Your task to perform on an android device: find snoozed emails in the gmail app Image 0: 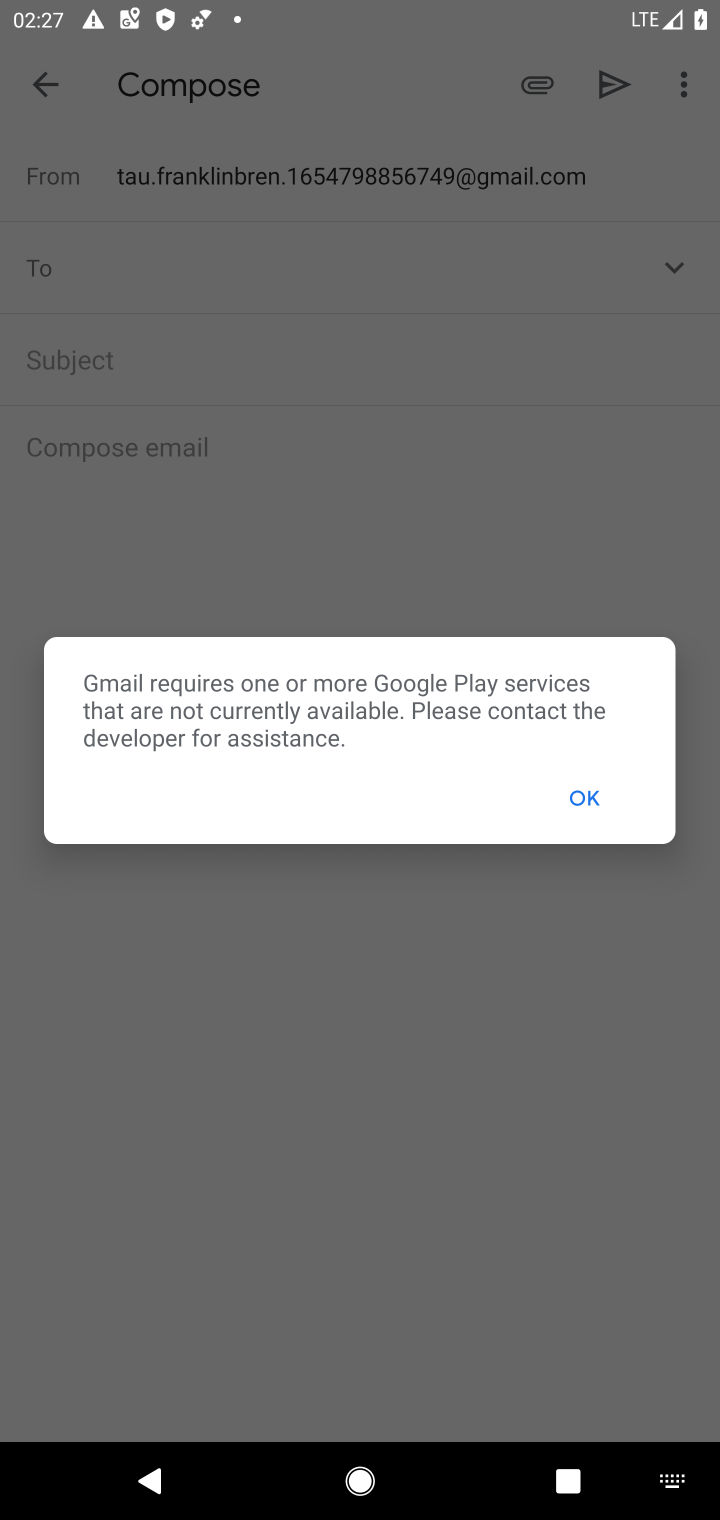
Step 0: press home button
Your task to perform on an android device: find snoozed emails in the gmail app Image 1: 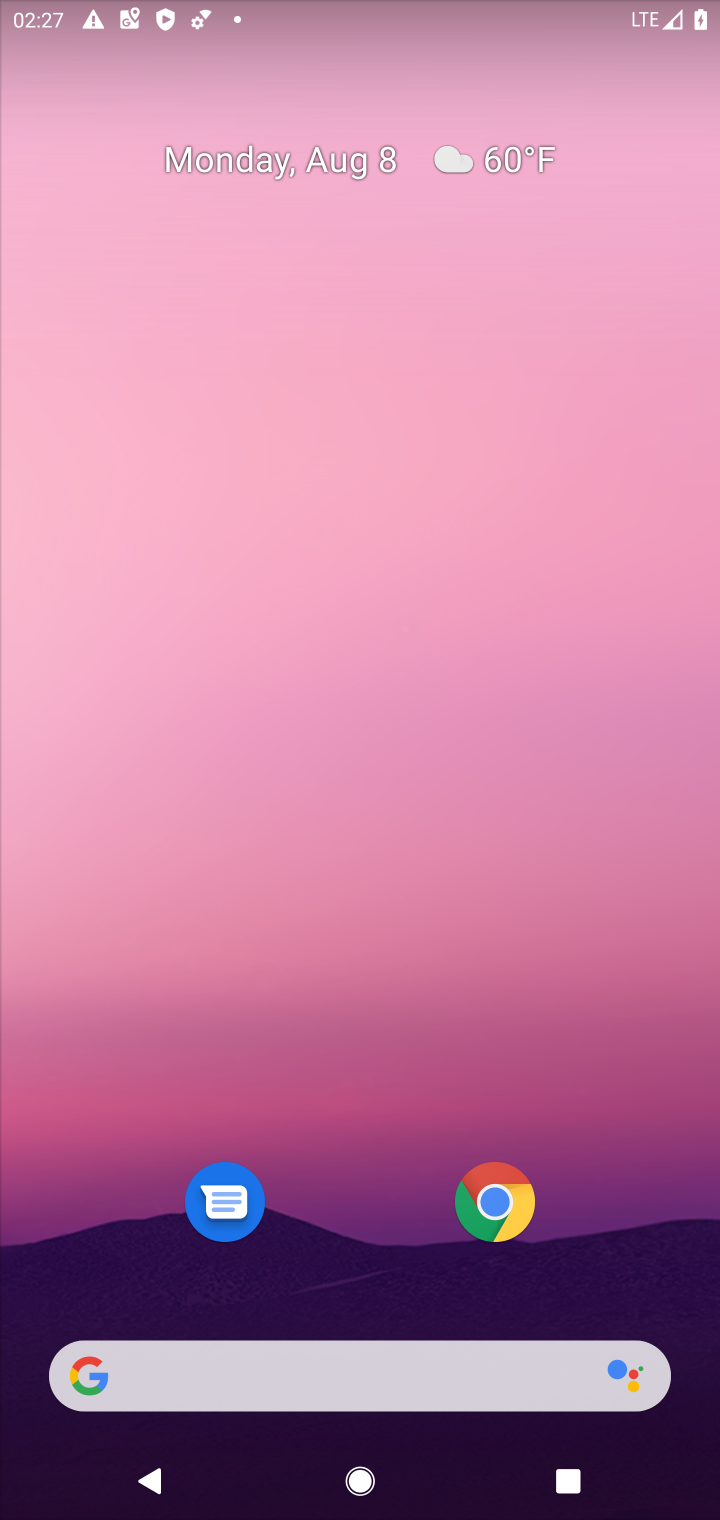
Step 1: drag from (344, 952) to (406, 426)
Your task to perform on an android device: find snoozed emails in the gmail app Image 2: 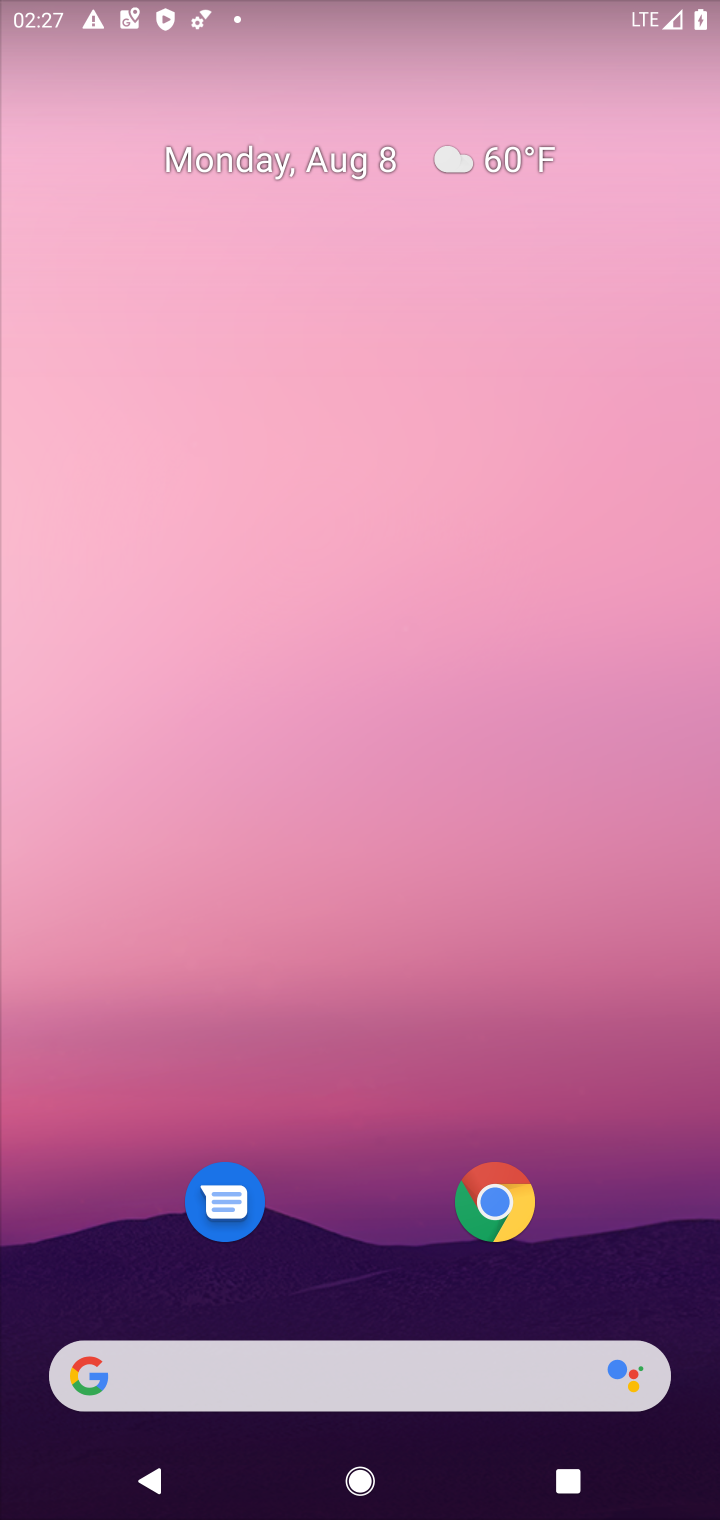
Step 2: drag from (398, 633) to (413, 143)
Your task to perform on an android device: find snoozed emails in the gmail app Image 3: 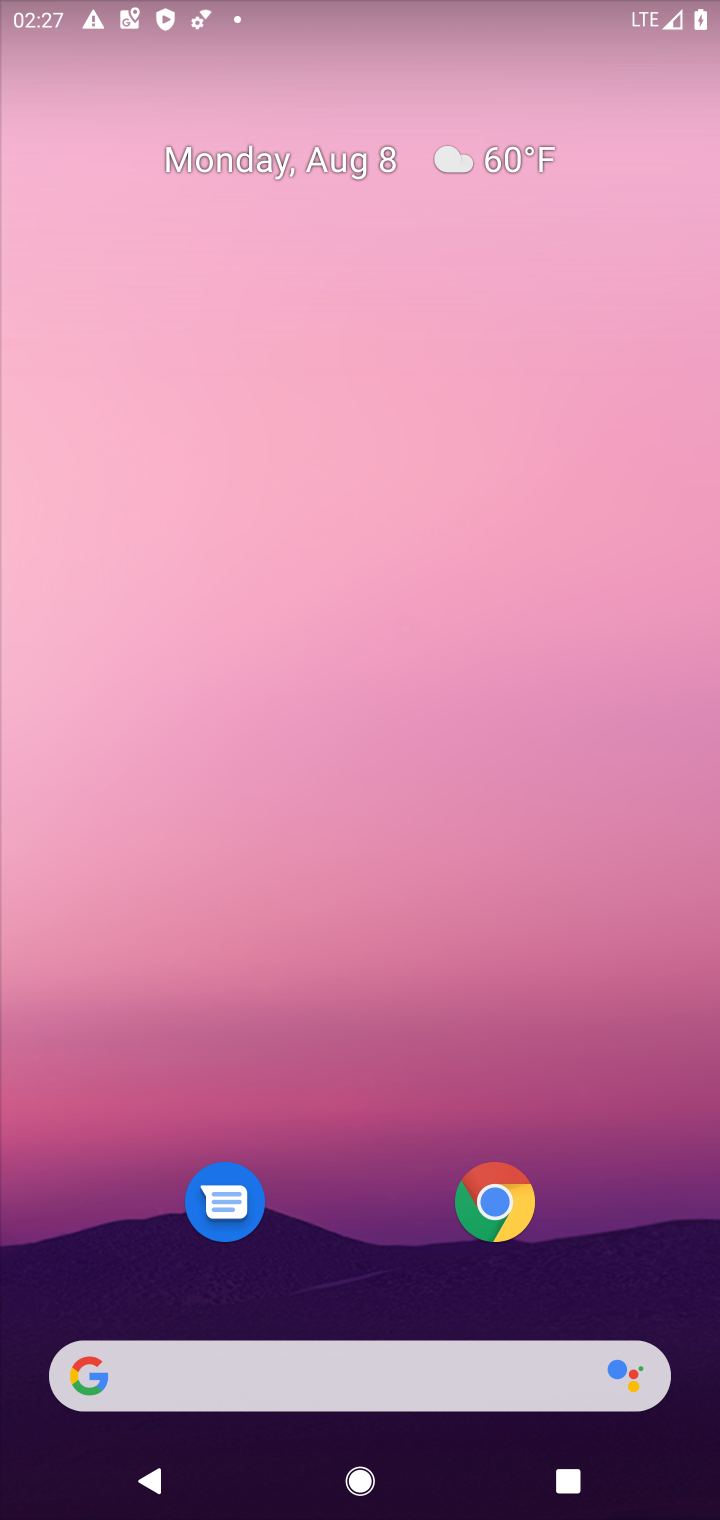
Step 3: click (431, 107)
Your task to perform on an android device: find snoozed emails in the gmail app Image 4: 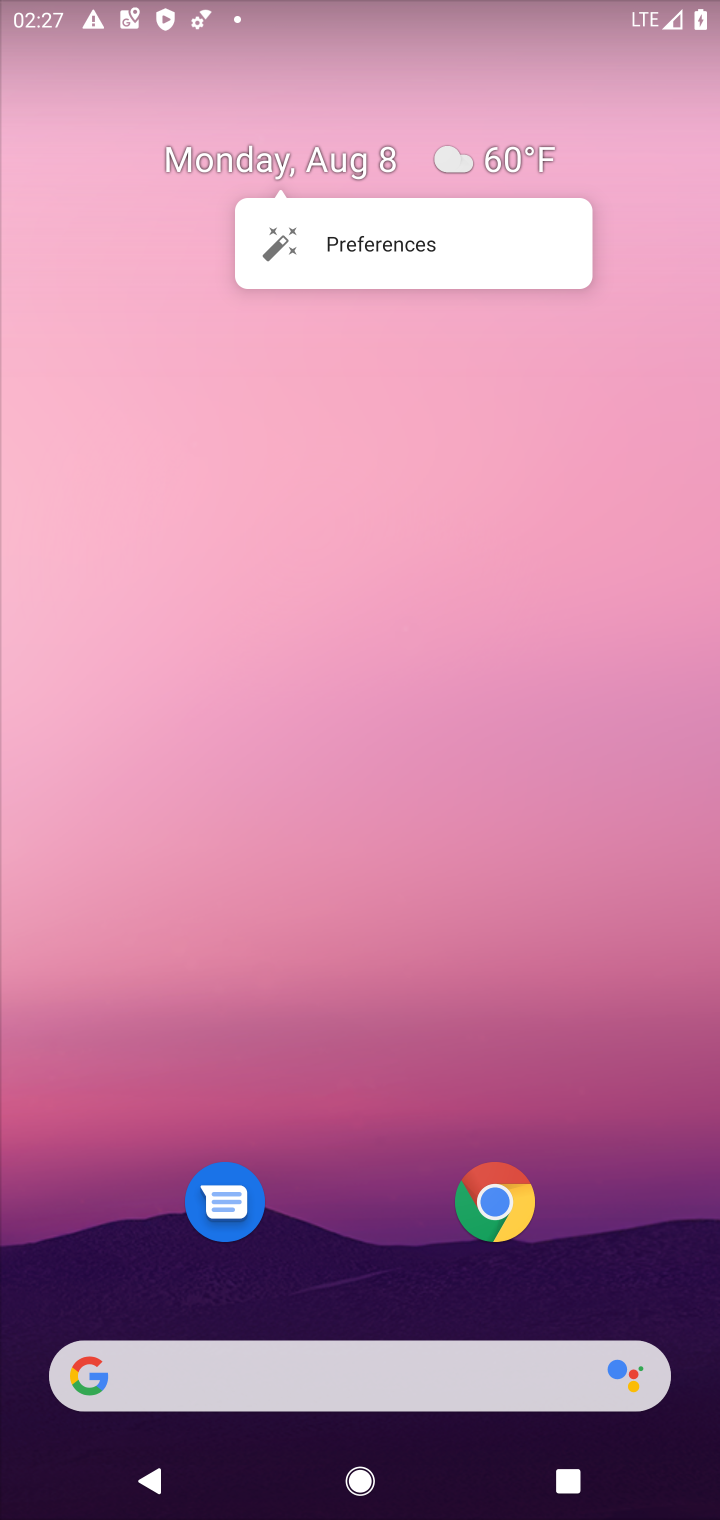
Step 4: drag from (311, 1001) to (393, 41)
Your task to perform on an android device: find snoozed emails in the gmail app Image 5: 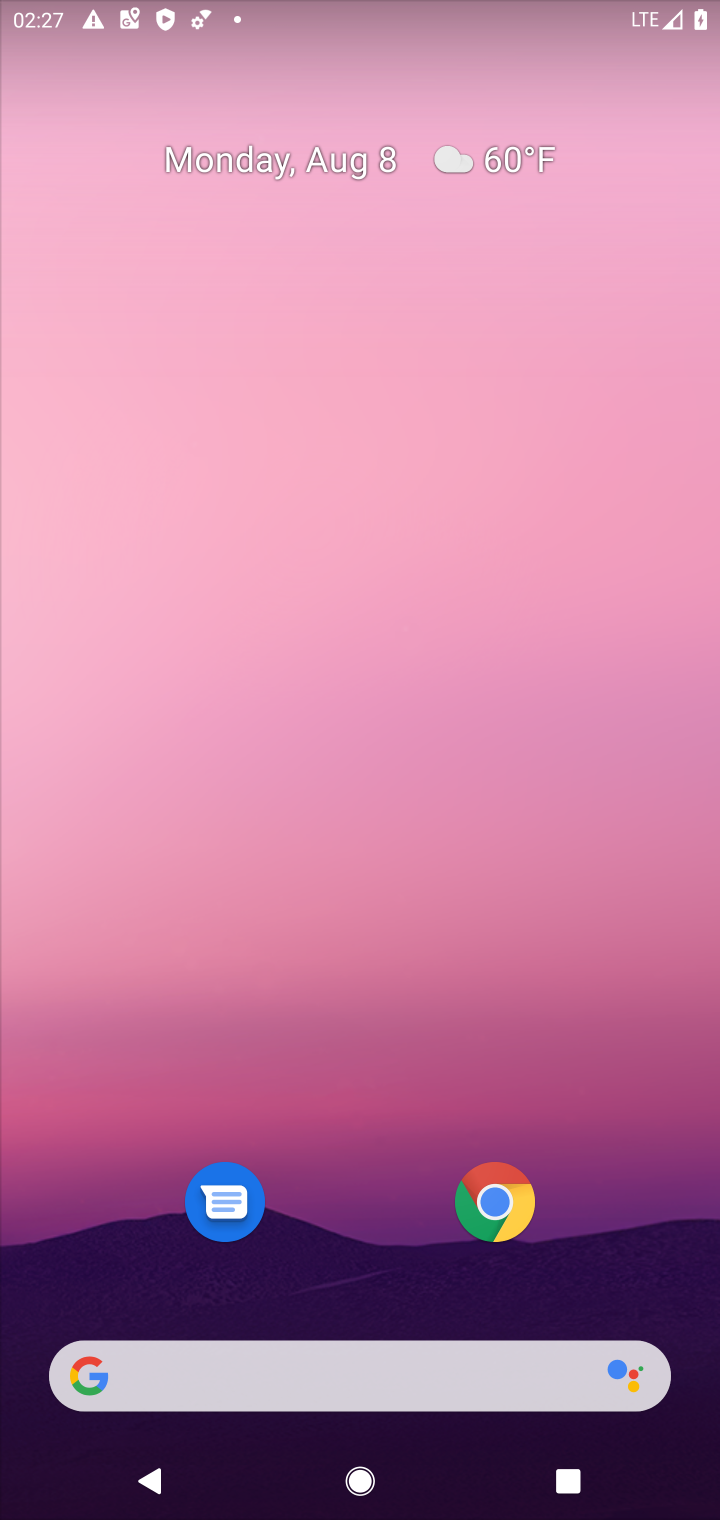
Step 5: click (320, 145)
Your task to perform on an android device: find snoozed emails in the gmail app Image 6: 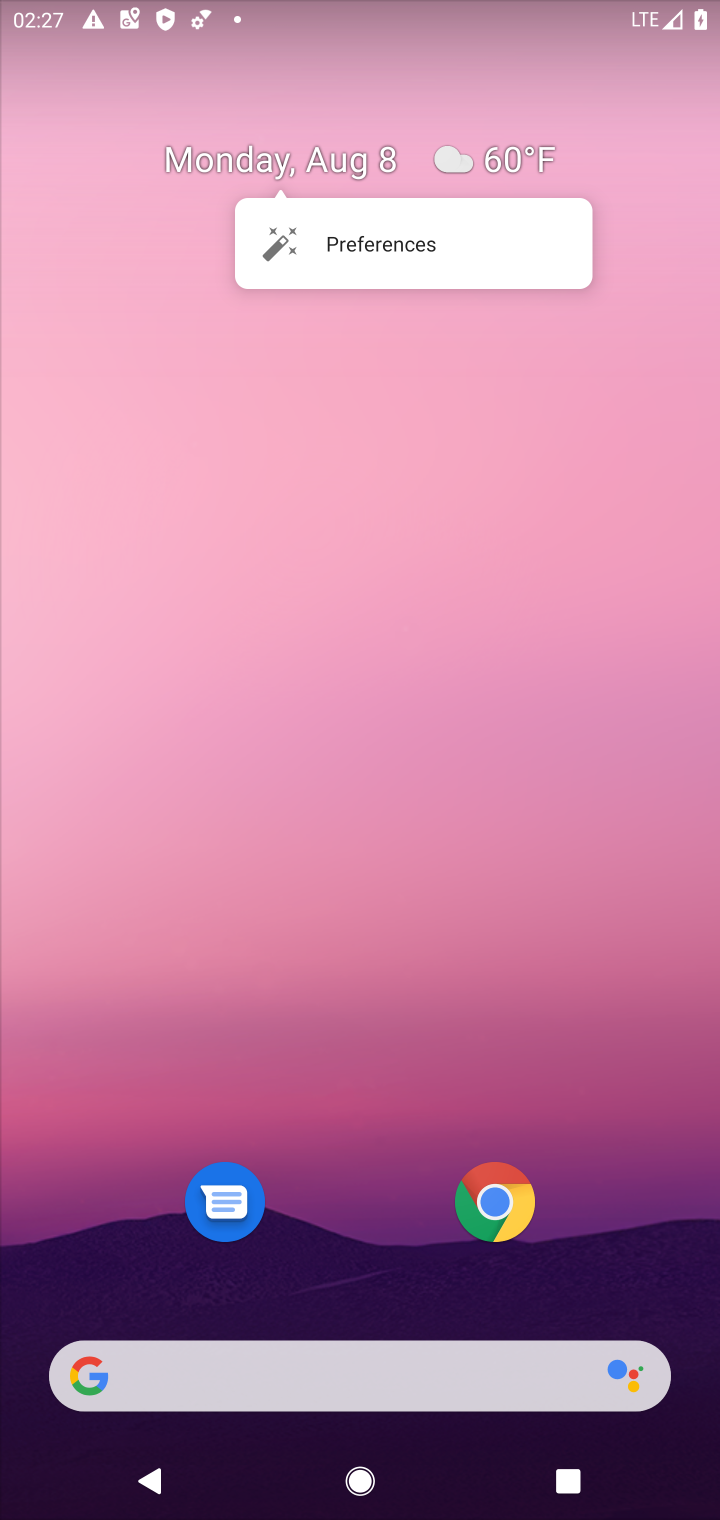
Step 6: click (336, 1259)
Your task to perform on an android device: find snoozed emails in the gmail app Image 7: 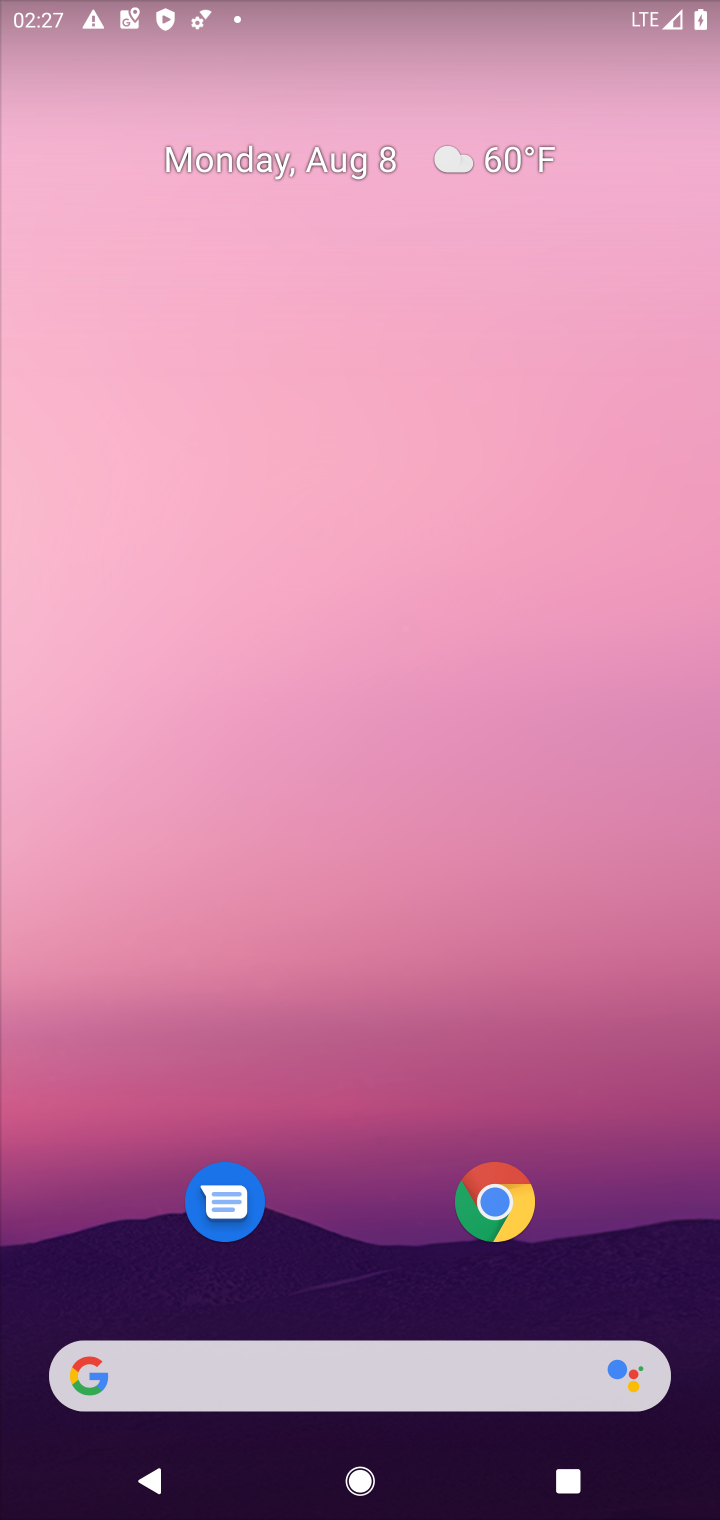
Step 7: drag from (368, 147) to (401, 213)
Your task to perform on an android device: find snoozed emails in the gmail app Image 8: 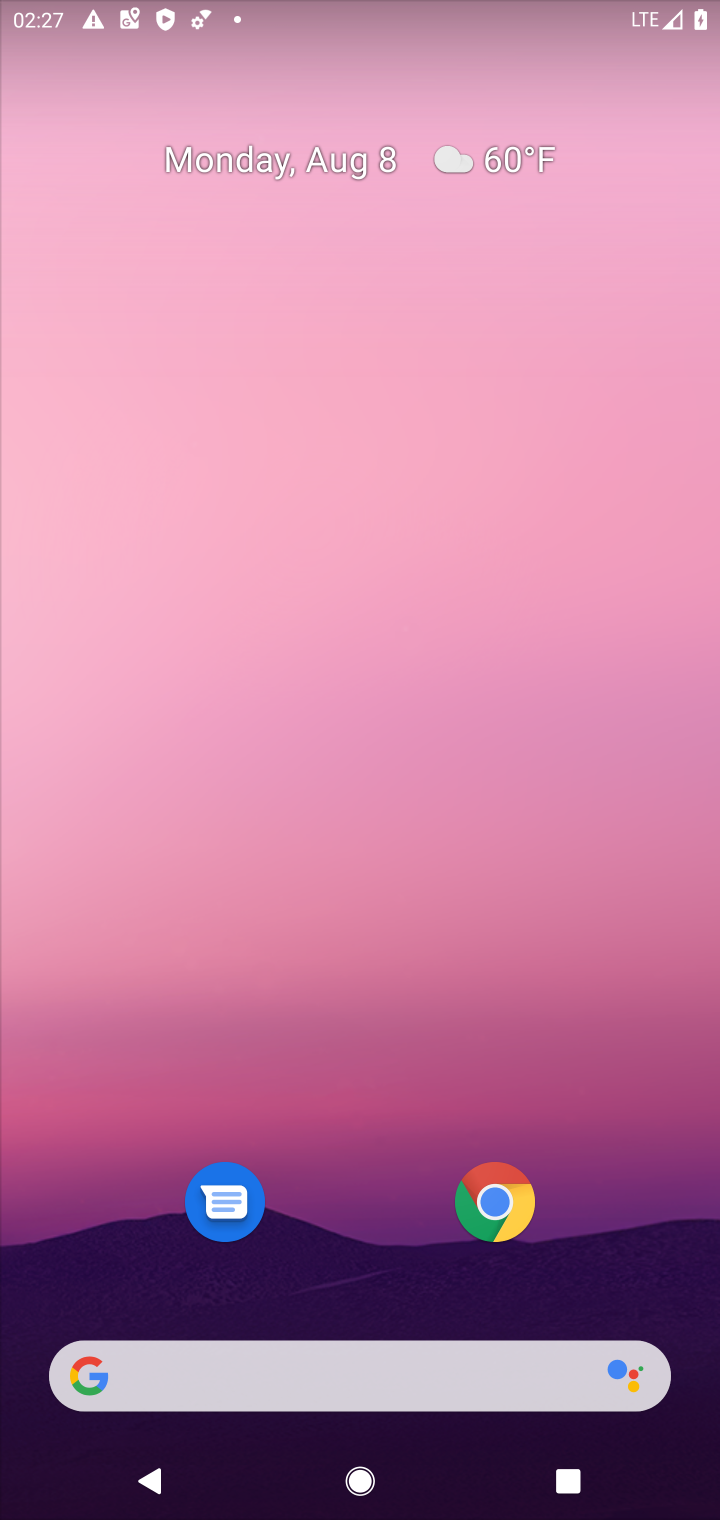
Step 8: drag from (336, 1104) to (423, 235)
Your task to perform on an android device: find snoozed emails in the gmail app Image 9: 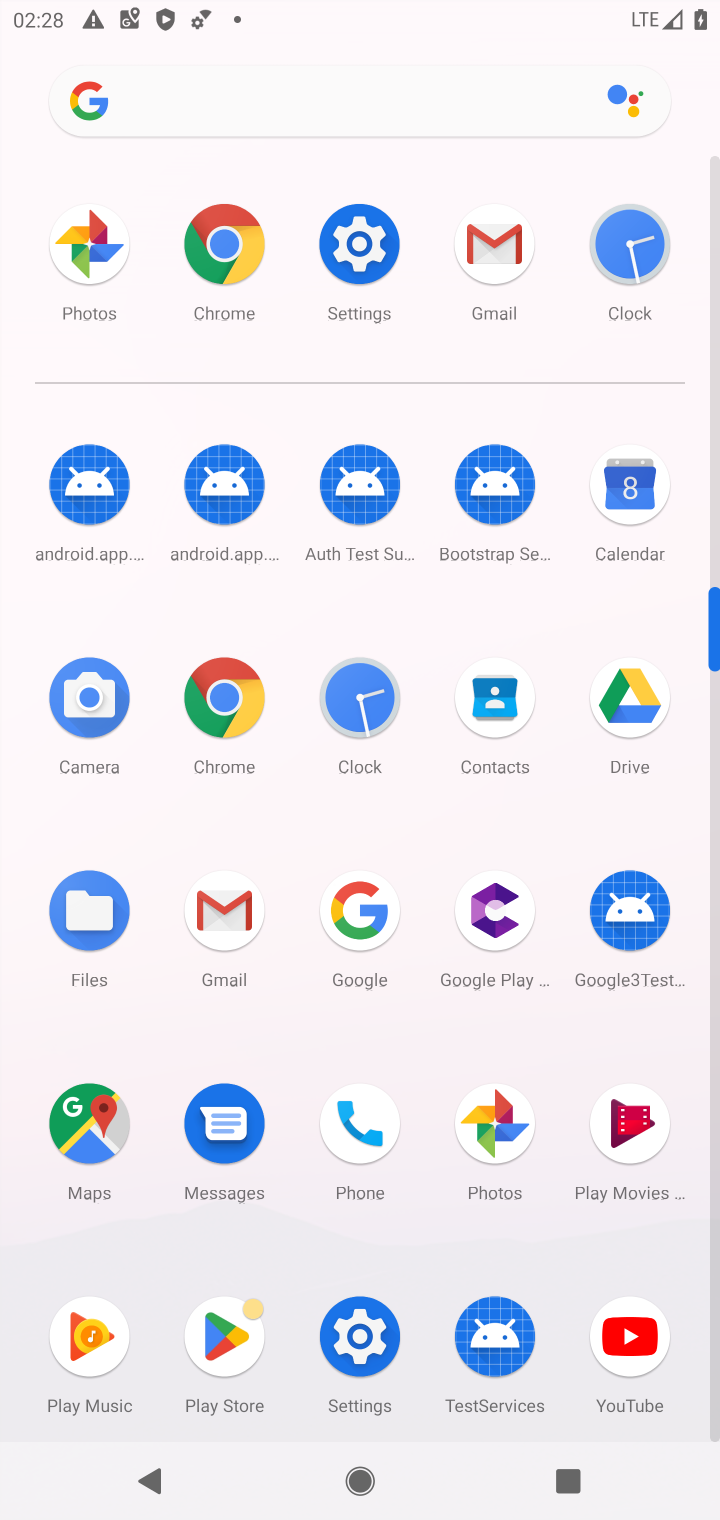
Step 9: click (492, 267)
Your task to perform on an android device: find snoozed emails in the gmail app Image 10: 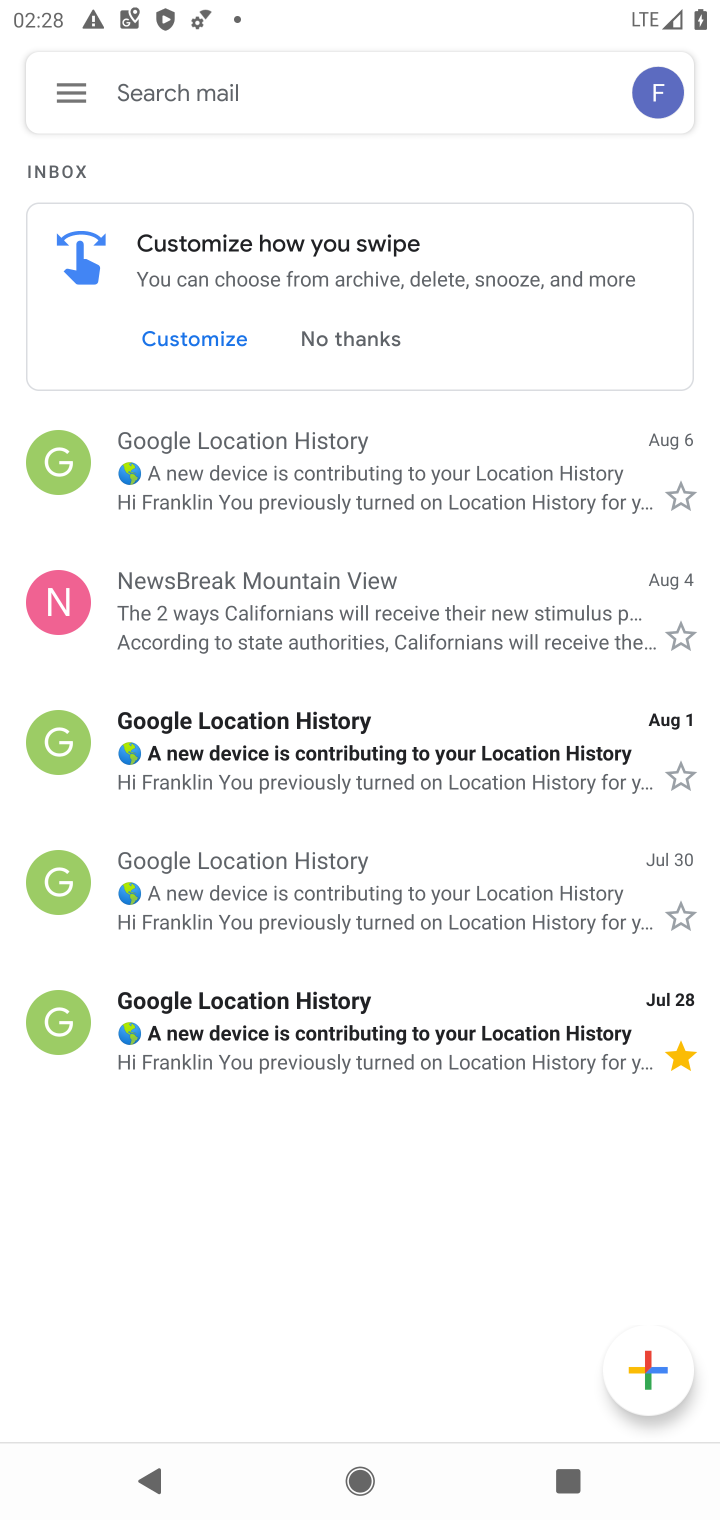
Step 10: click (77, 93)
Your task to perform on an android device: find snoozed emails in the gmail app Image 11: 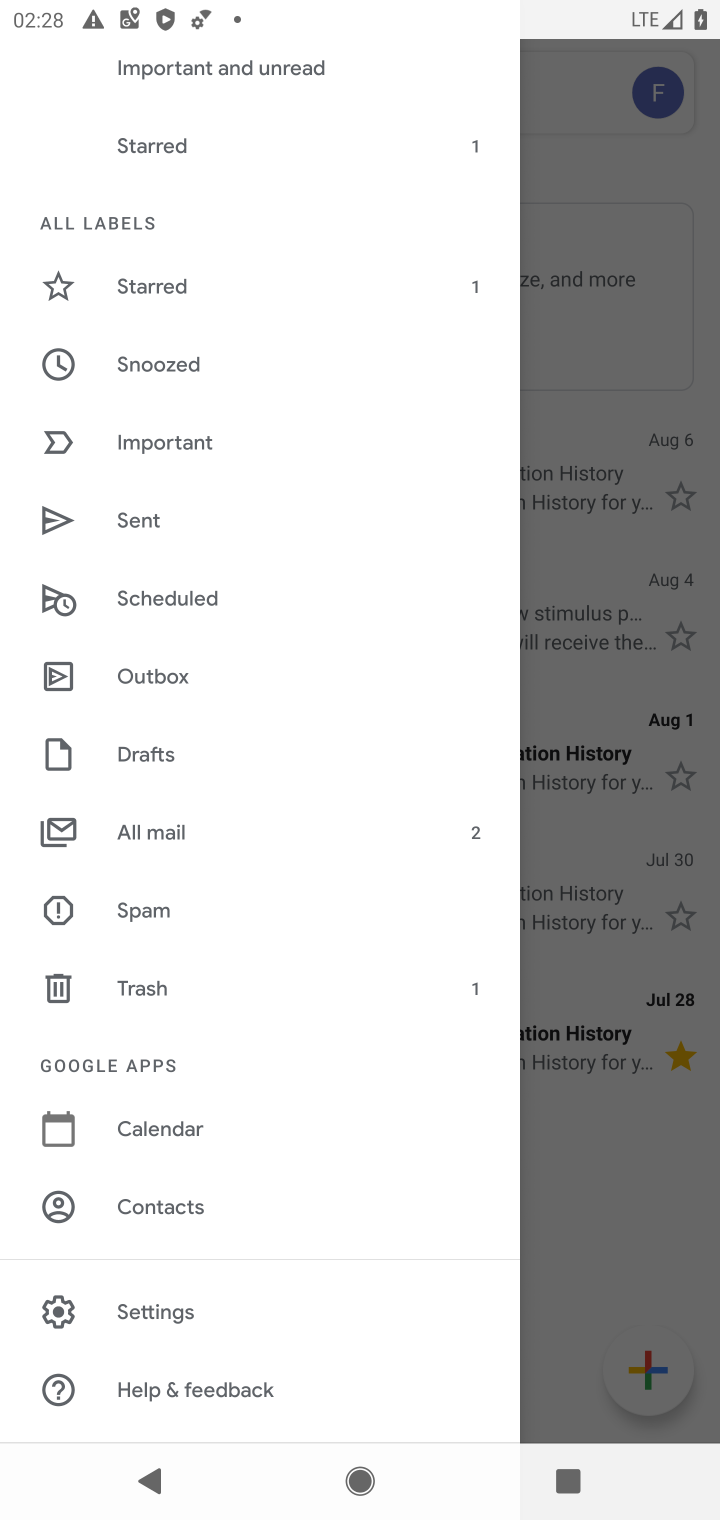
Step 11: click (164, 366)
Your task to perform on an android device: find snoozed emails in the gmail app Image 12: 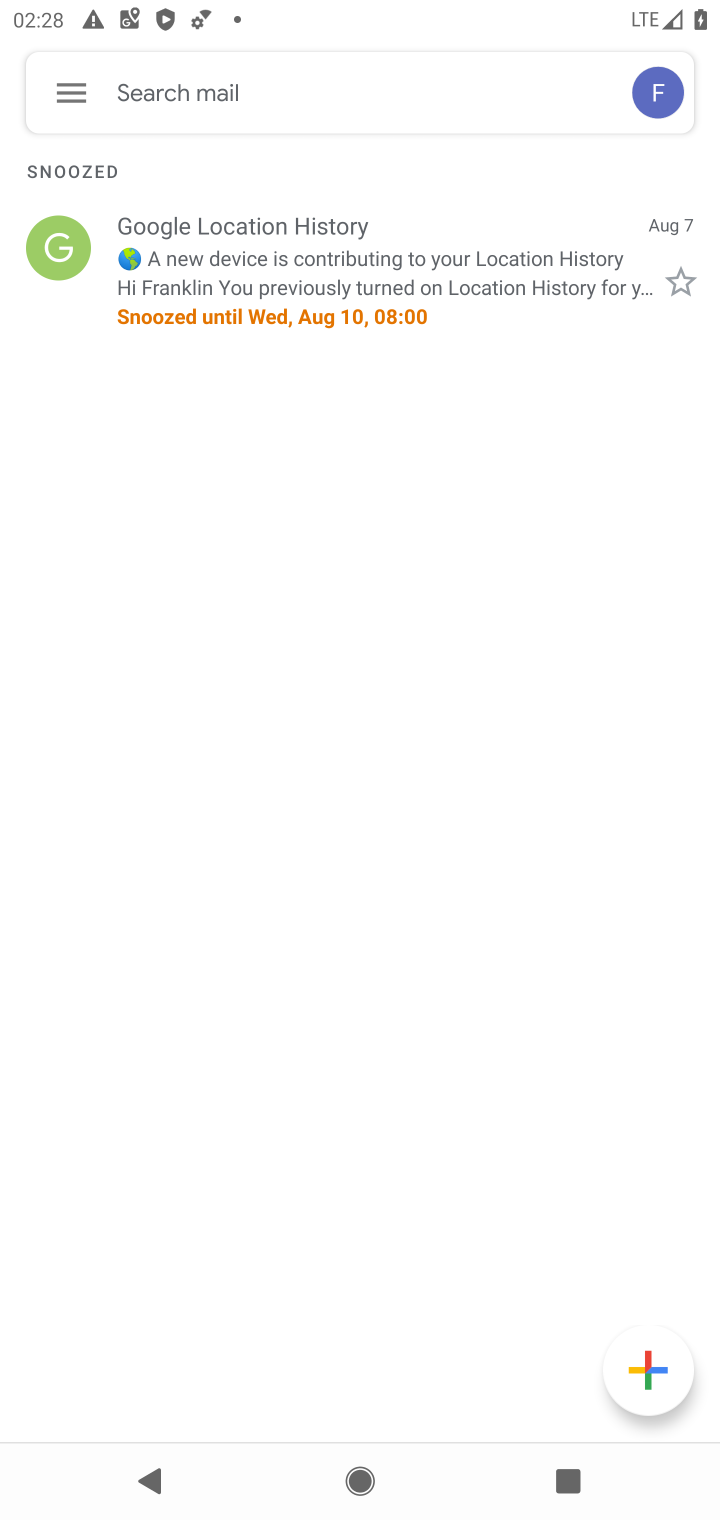
Step 12: task complete